Your task to perform on an android device: Open privacy settings Image 0: 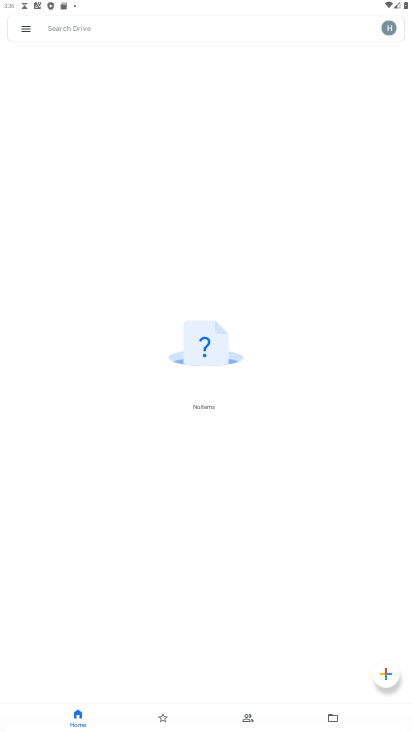
Step 0: press home button
Your task to perform on an android device: Open privacy settings Image 1: 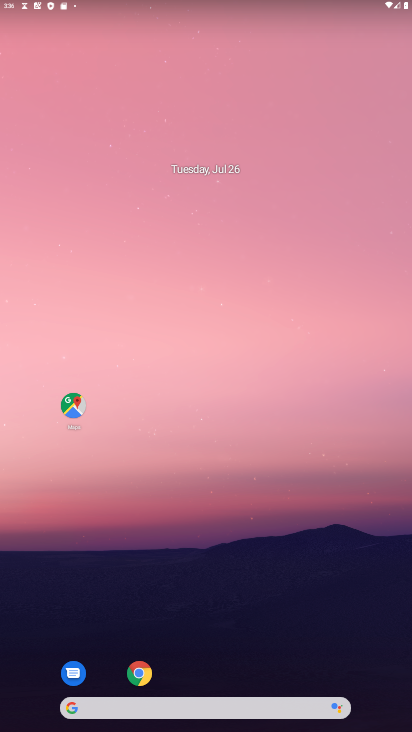
Step 1: drag from (185, 705) to (271, 14)
Your task to perform on an android device: Open privacy settings Image 2: 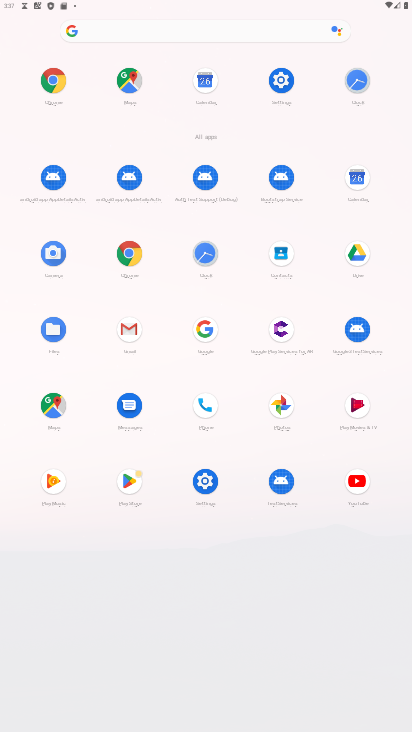
Step 2: click (281, 78)
Your task to perform on an android device: Open privacy settings Image 3: 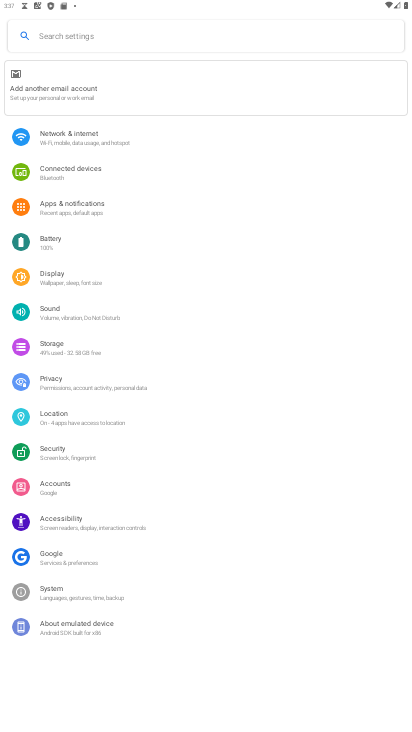
Step 3: click (57, 385)
Your task to perform on an android device: Open privacy settings Image 4: 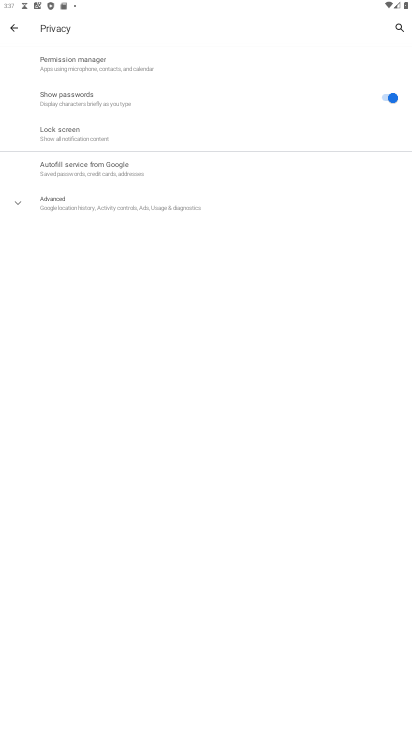
Step 4: task complete